Your task to perform on an android device: Go to Google maps Image 0: 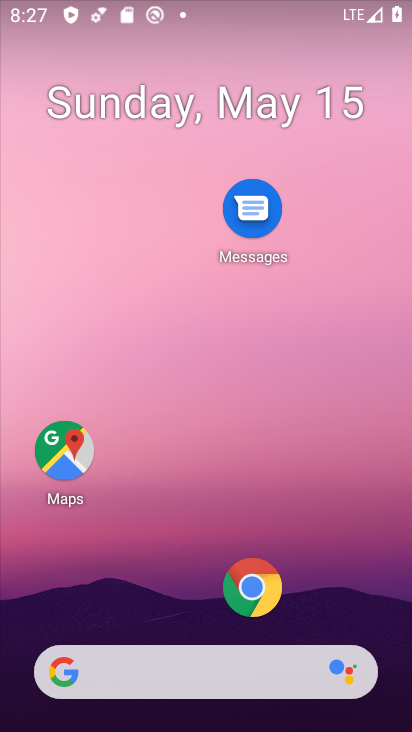
Step 0: click (55, 452)
Your task to perform on an android device: Go to Google maps Image 1: 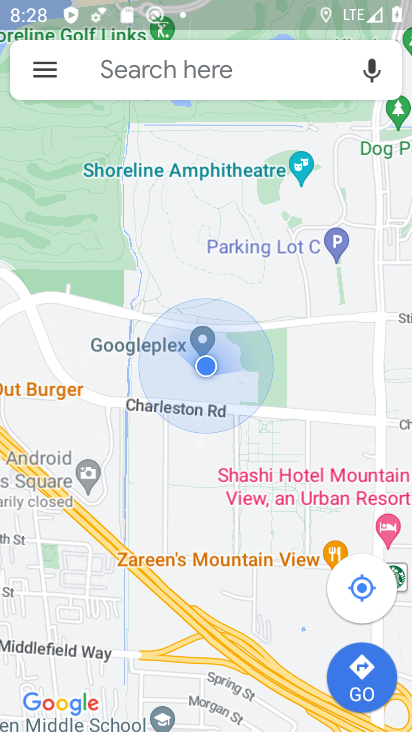
Step 1: task complete